Your task to perform on an android device: empty trash in google photos Image 0: 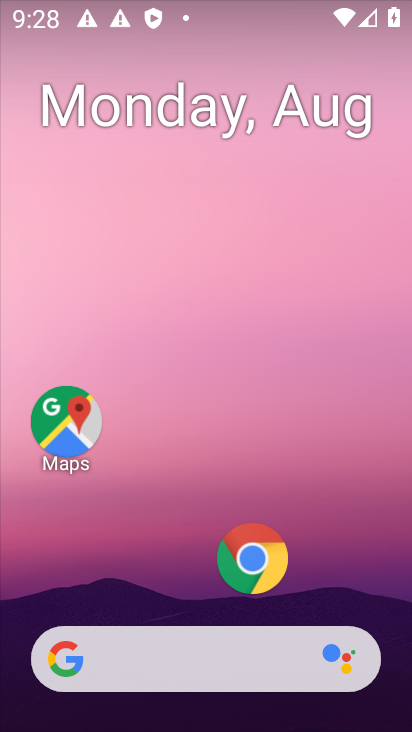
Step 0: drag from (179, 595) to (206, 16)
Your task to perform on an android device: empty trash in google photos Image 1: 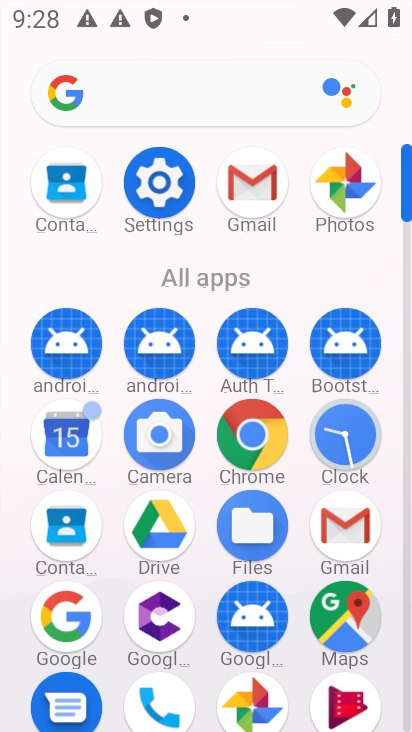
Step 1: click (345, 173)
Your task to perform on an android device: empty trash in google photos Image 2: 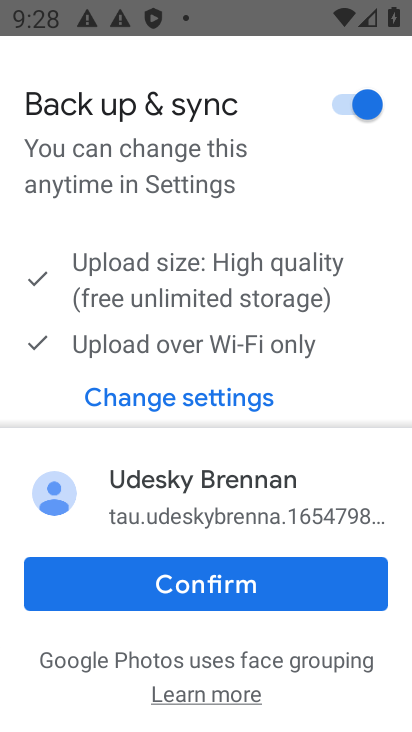
Step 2: click (210, 584)
Your task to perform on an android device: empty trash in google photos Image 3: 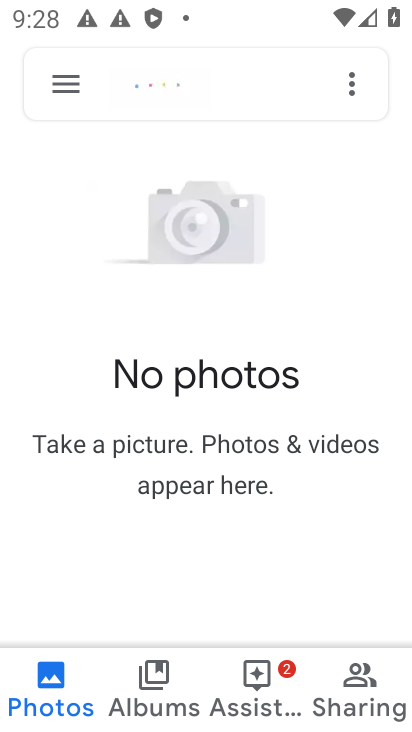
Step 3: click (62, 76)
Your task to perform on an android device: empty trash in google photos Image 4: 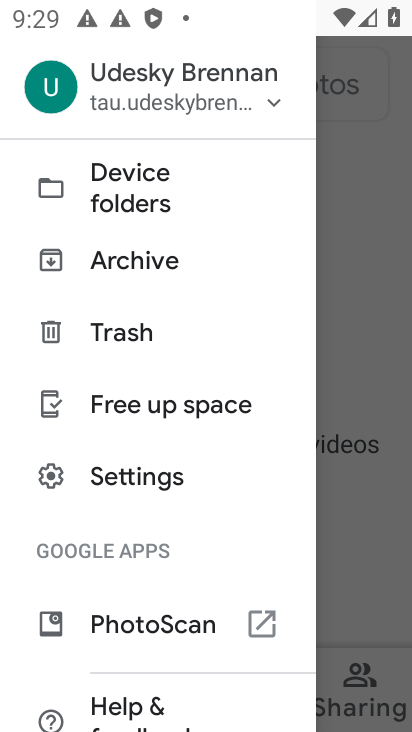
Step 4: click (88, 331)
Your task to perform on an android device: empty trash in google photos Image 5: 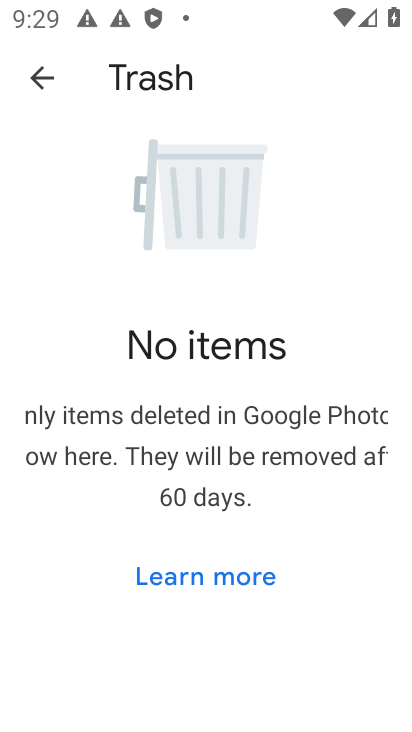
Step 5: task complete